Your task to perform on an android device: manage bookmarks in the chrome app Image 0: 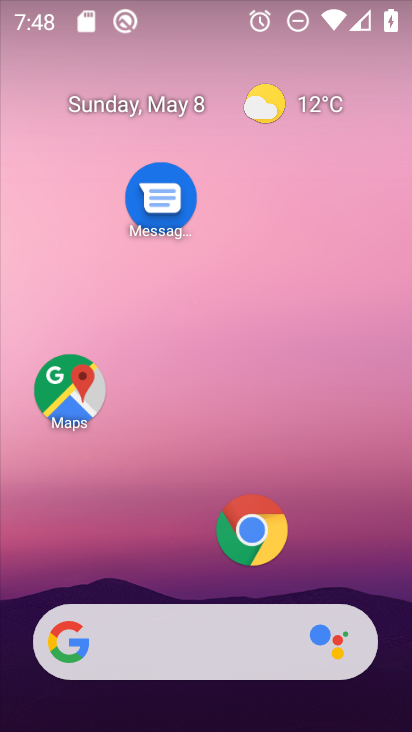
Step 0: drag from (192, 577) to (232, 4)
Your task to perform on an android device: manage bookmarks in the chrome app Image 1: 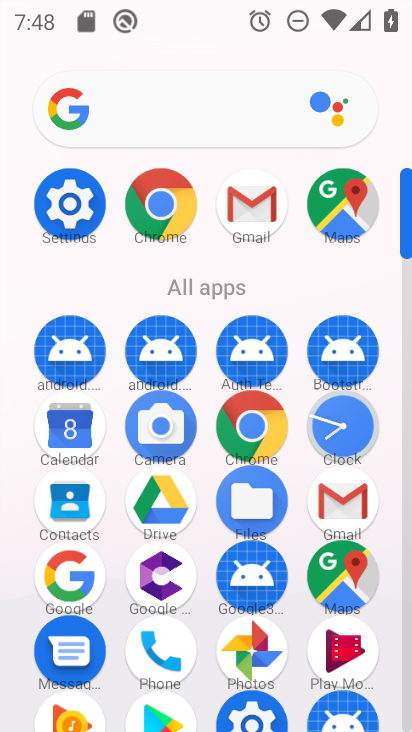
Step 1: click (250, 423)
Your task to perform on an android device: manage bookmarks in the chrome app Image 2: 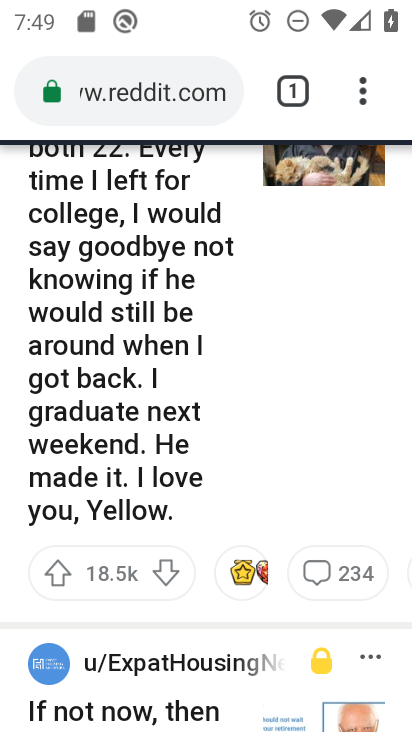
Step 2: press back button
Your task to perform on an android device: manage bookmarks in the chrome app Image 3: 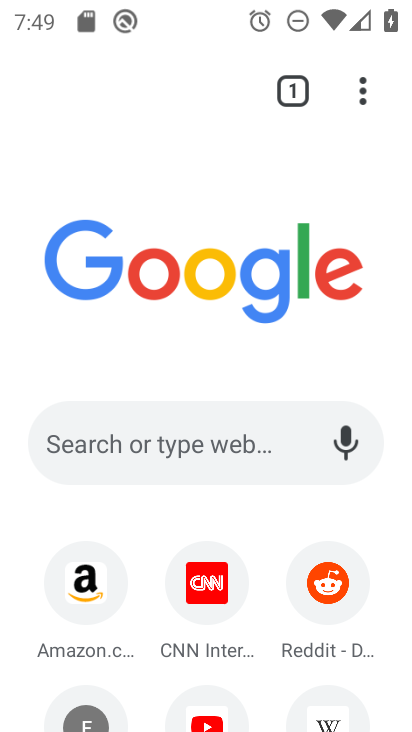
Step 3: click (356, 91)
Your task to perform on an android device: manage bookmarks in the chrome app Image 4: 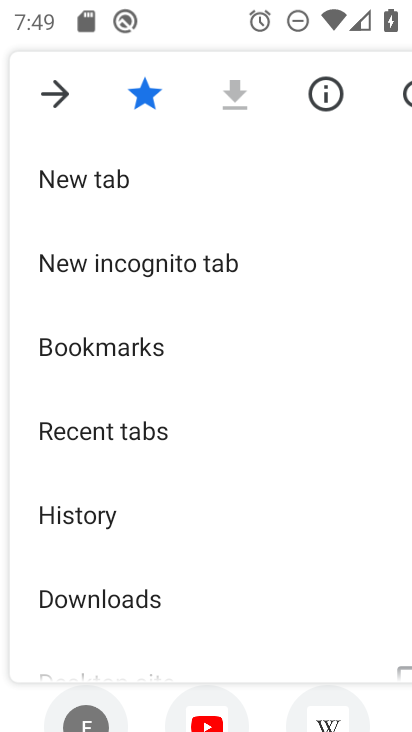
Step 4: click (169, 342)
Your task to perform on an android device: manage bookmarks in the chrome app Image 5: 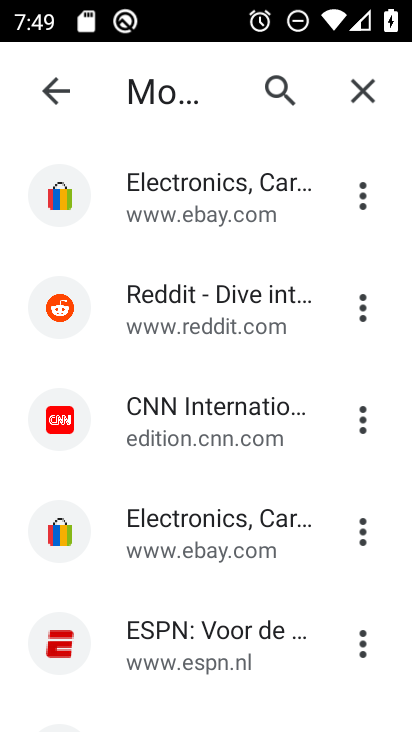
Step 5: click (368, 310)
Your task to perform on an android device: manage bookmarks in the chrome app Image 6: 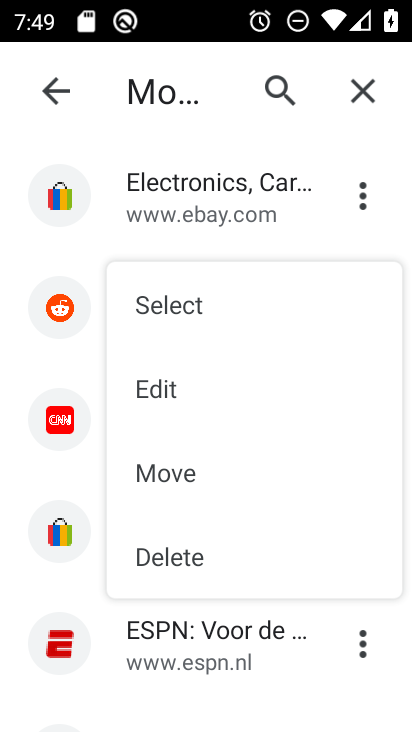
Step 6: click (211, 559)
Your task to perform on an android device: manage bookmarks in the chrome app Image 7: 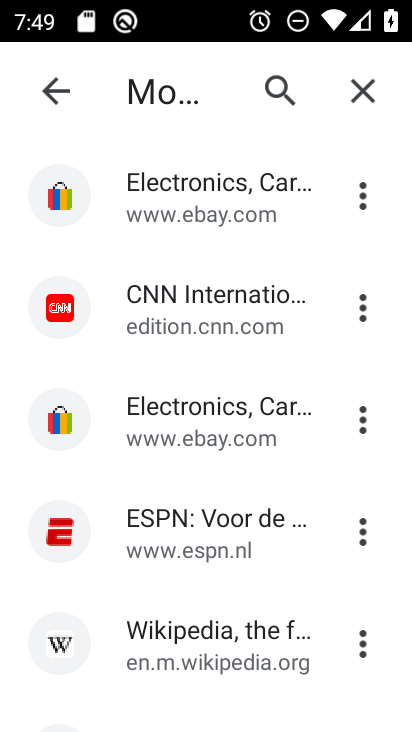
Step 7: task complete